Your task to perform on an android device: Open CNN.com Image 0: 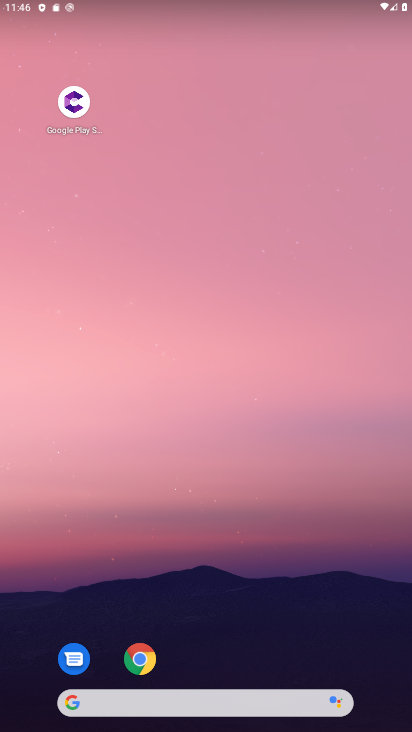
Step 0: click (182, 705)
Your task to perform on an android device: Open CNN.com Image 1: 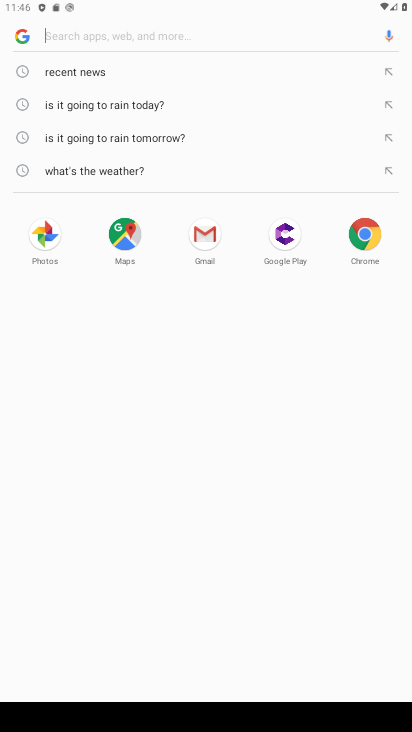
Step 1: type "cnn.com"
Your task to perform on an android device: Open CNN.com Image 2: 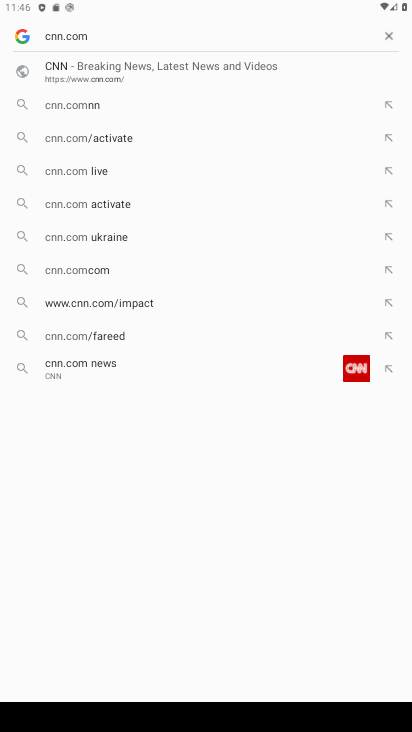
Step 2: click (120, 68)
Your task to perform on an android device: Open CNN.com Image 3: 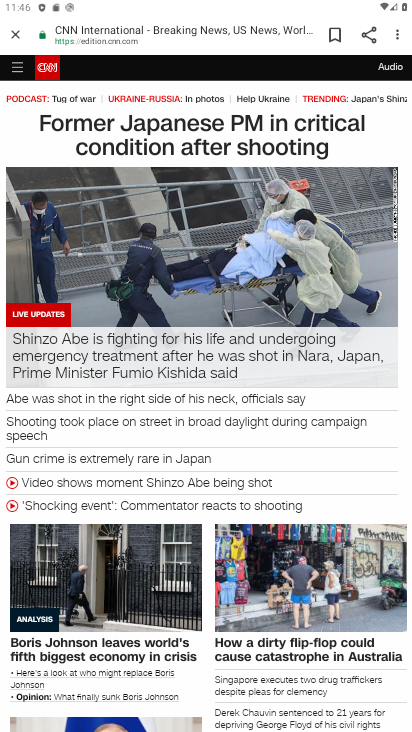
Step 3: task complete